Your task to perform on an android device: Open display settings Image 0: 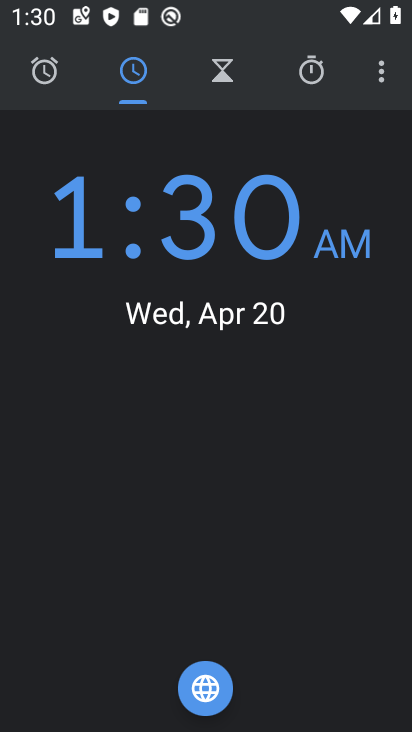
Step 0: press home button
Your task to perform on an android device: Open display settings Image 1: 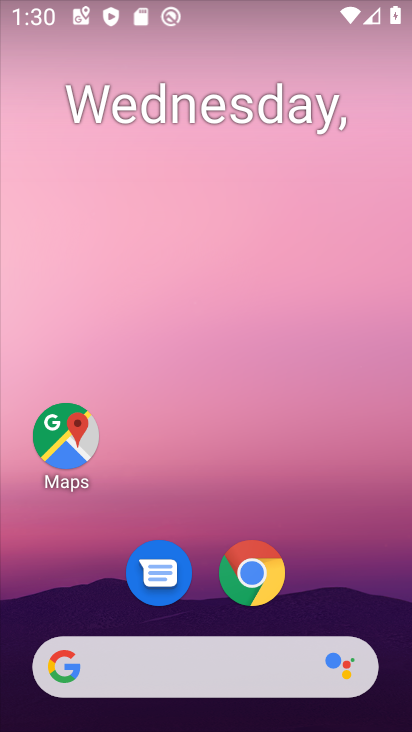
Step 1: drag from (202, 564) to (223, 155)
Your task to perform on an android device: Open display settings Image 2: 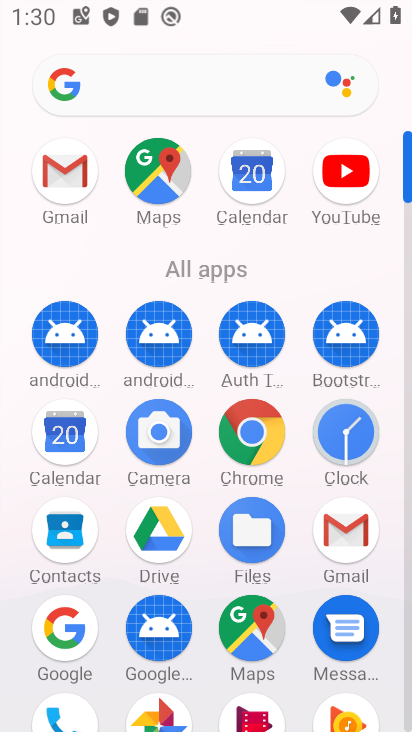
Step 2: drag from (204, 576) to (245, 183)
Your task to perform on an android device: Open display settings Image 3: 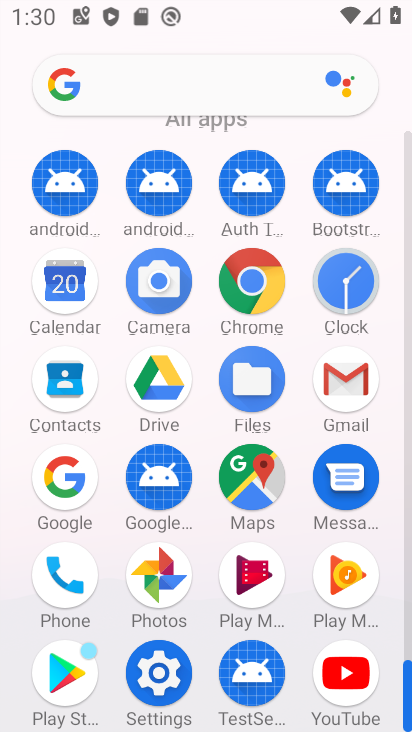
Step 3: click (157, 671)
Your task to perform on an android device: Open display settings Image 4: 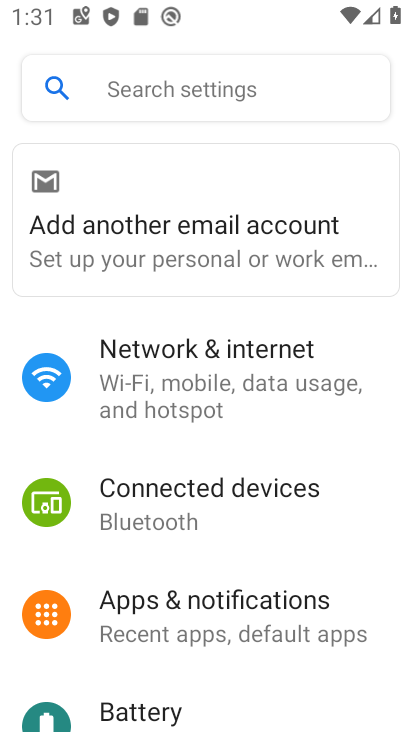
Step 4: drag from (202, 669) to (176, 268)
Your task to perform on an android device: Open display settings Image 5: 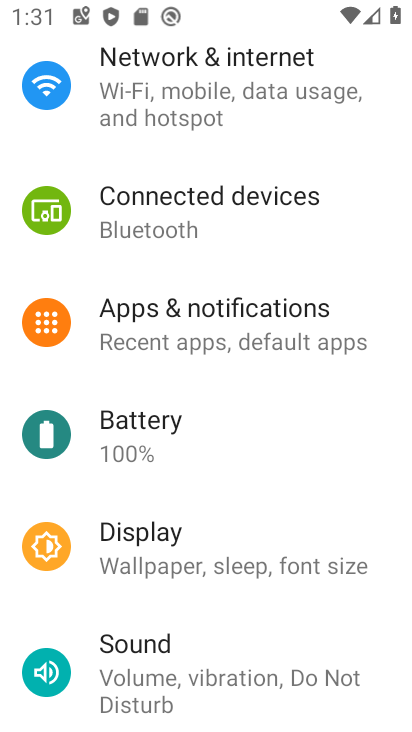
Step 5: click (166, 531)
Your task to perform on an android device: Open display settings Image 6: 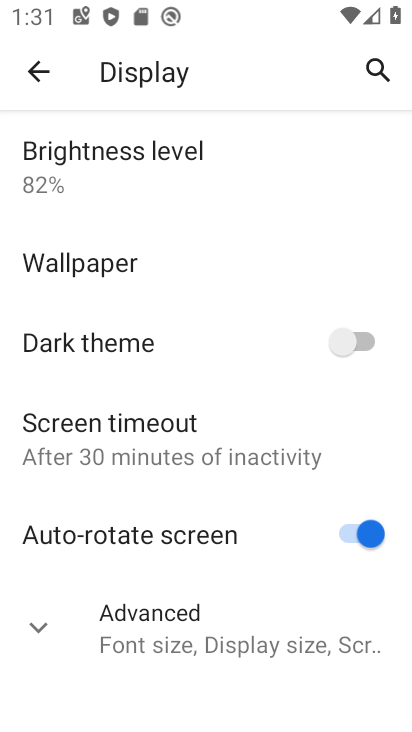
Step 6: click (150, 637)
Your task to perform on an android device: Open display settings Image 7: 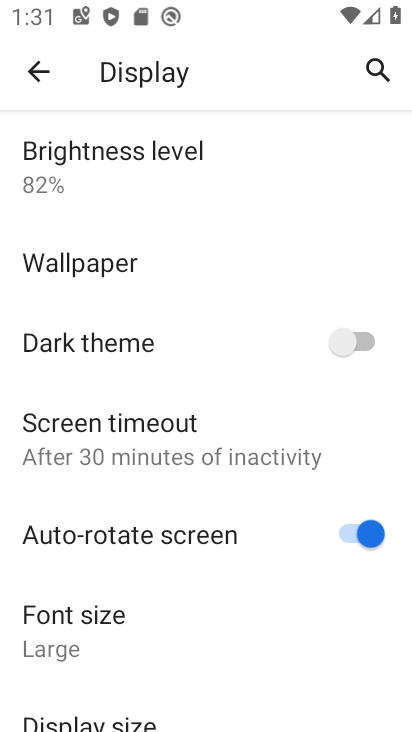
Step 7: task complete